Your task to perform on an android device: delete browsing data in the chrome app Image 0: 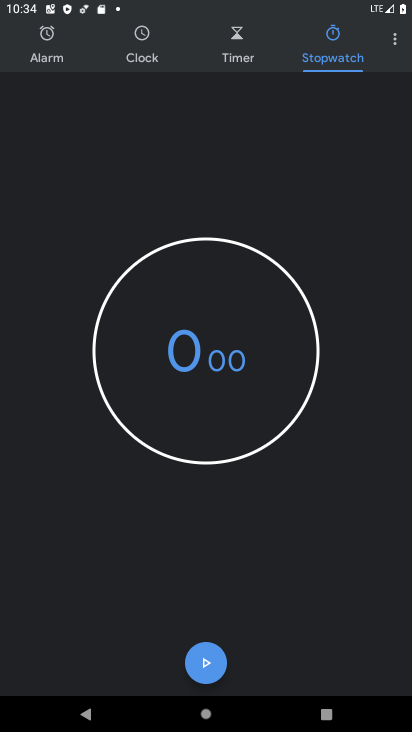
Step 0: press home button
Your task to perform on an android device: delete browsing data in the chrome app Image 1: 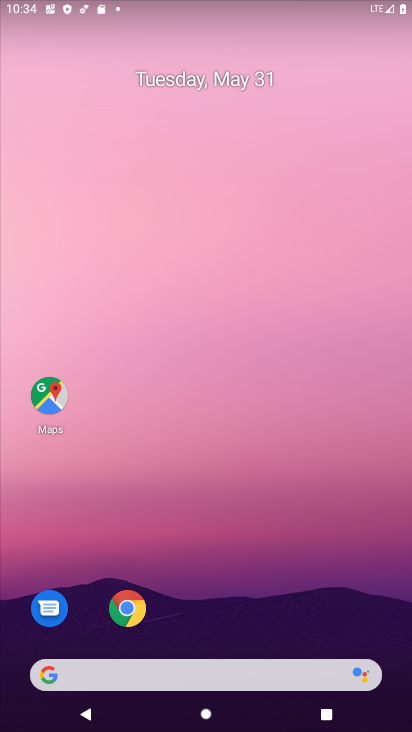
Step 1: drag from (220, 635) to (233, 58)
Your task to perform on an android device: delete browsing data in the chrome app Image 2: 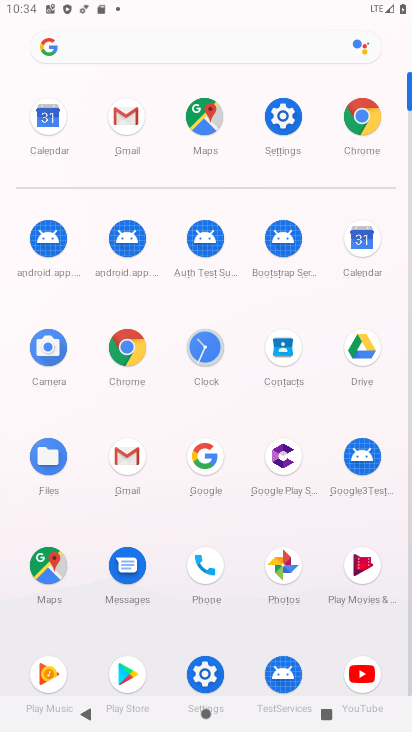
Step 2: click (132, 355)
Your task to perform on an android device: delete browsing data in the chrome app Image 3: 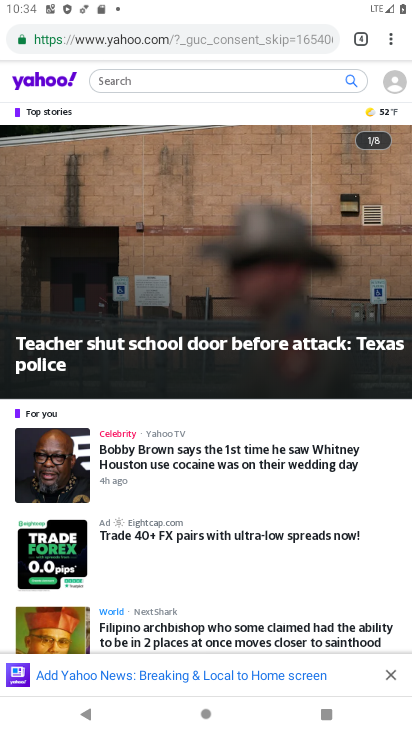
Step 3: drag from (389, 40) to (245, 267)
Your task to perform on an android device: delete browsing data in the chrome app Image 4: 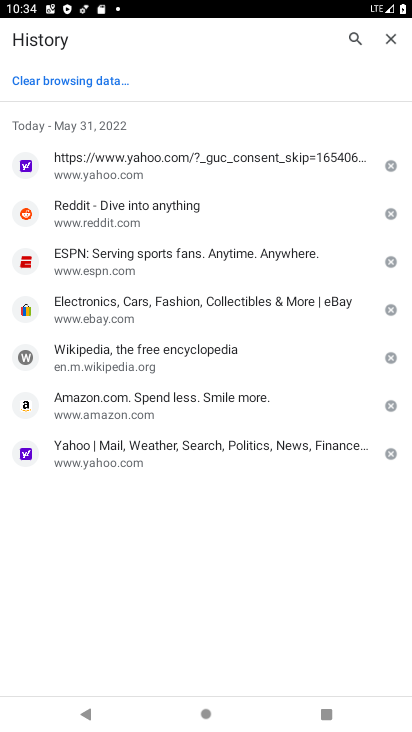
Step 4: click (61, 76)
Your task to perform on an android device: delete browsing data in the chrome app Image 5: 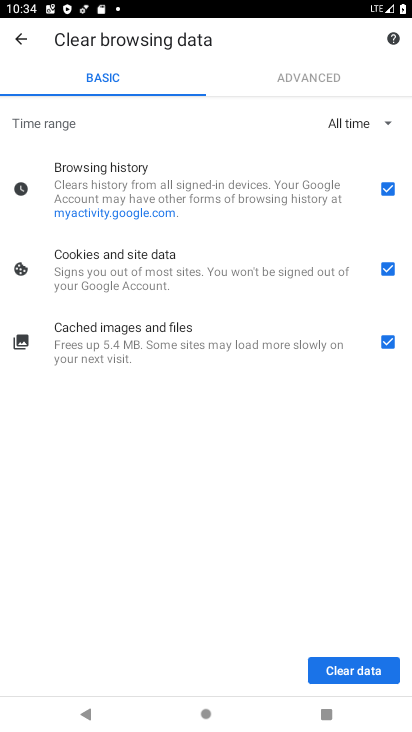
Step 5: click (330, 660)
Your task to perform on an android device: delete browsing data in the chrome app Image 6: 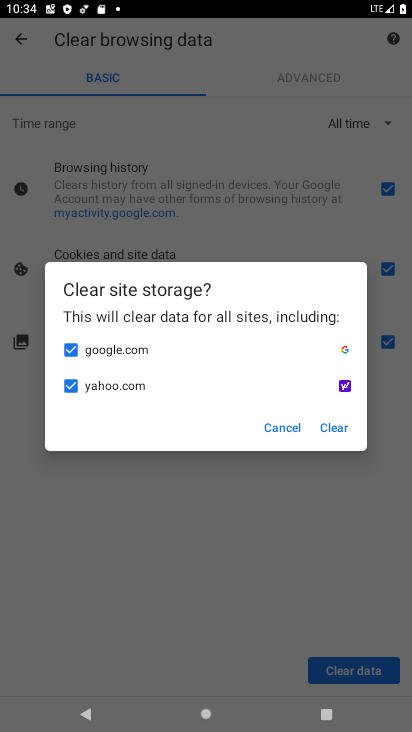
Step 6: click (342, 435)
Your task to perform on an android device: delete browsing data in the chrome app Image 7: 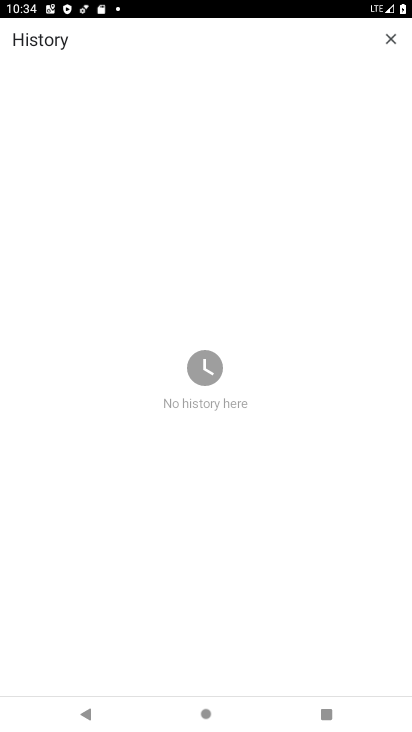
Step 7: task complete